Your task to perform on an android device: Go to Maps Image 0: 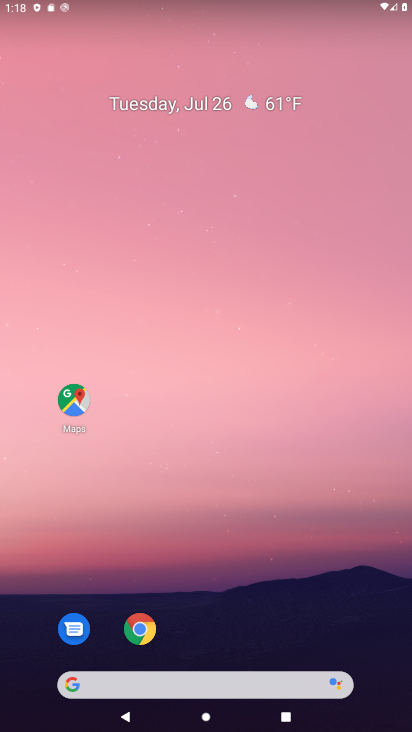
Step 0: click (70, 391)
Your task to perform on an android device: Go to Maps Image 1: 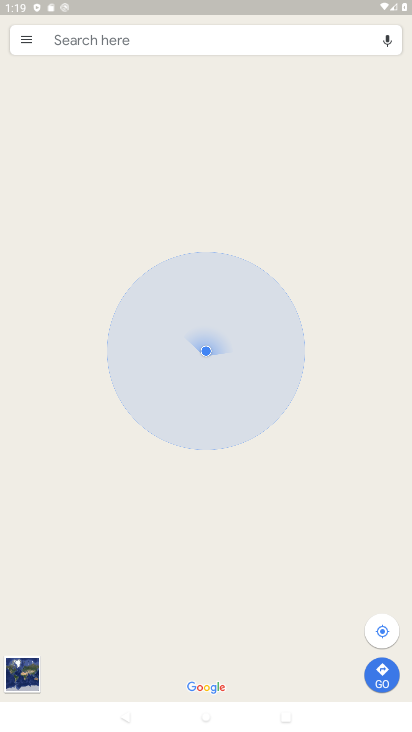
Step 1: task complete